Your task to perform on an android device: Go to sound settings Image 0: 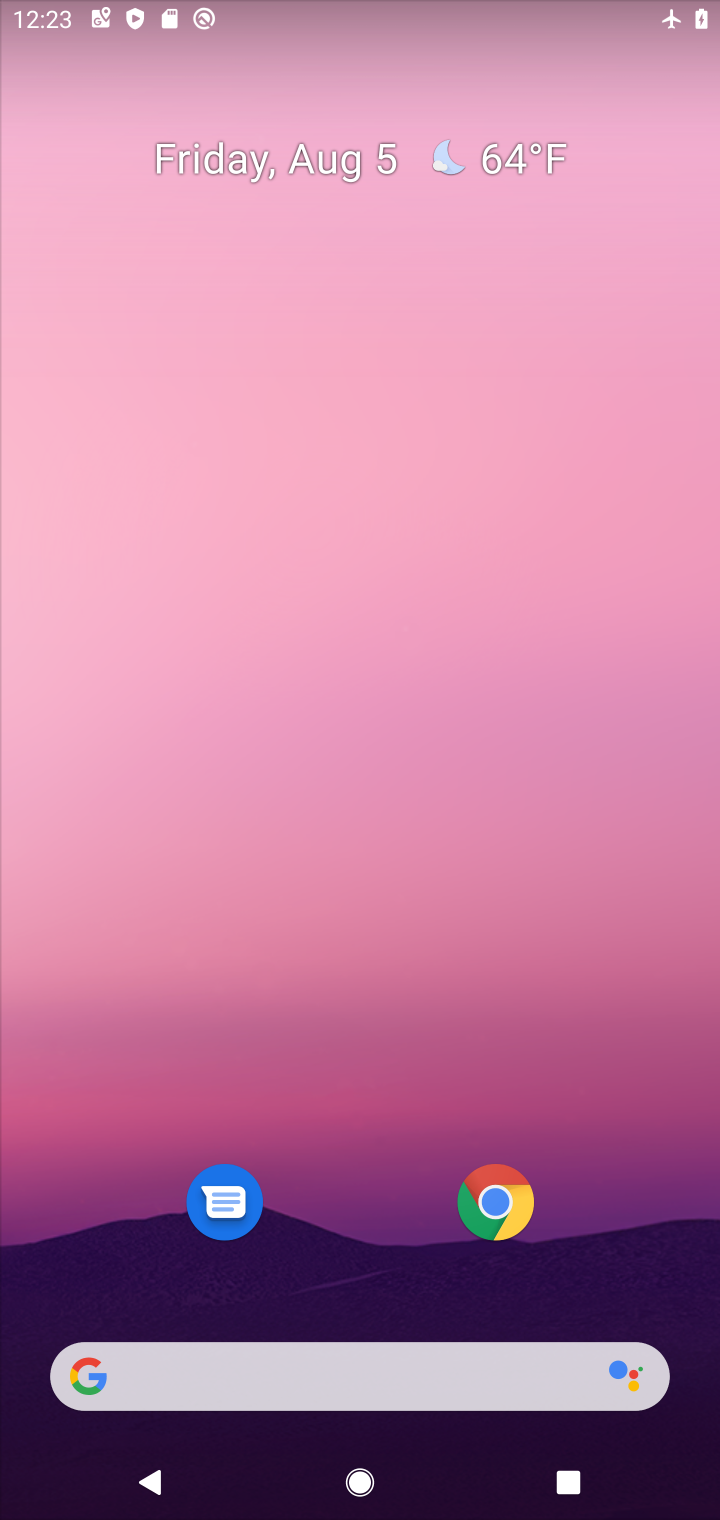
Step 0: drag from (341, 1022) to (389, 163)
Your task to perform on an android device: Go to sound settings Image 1: 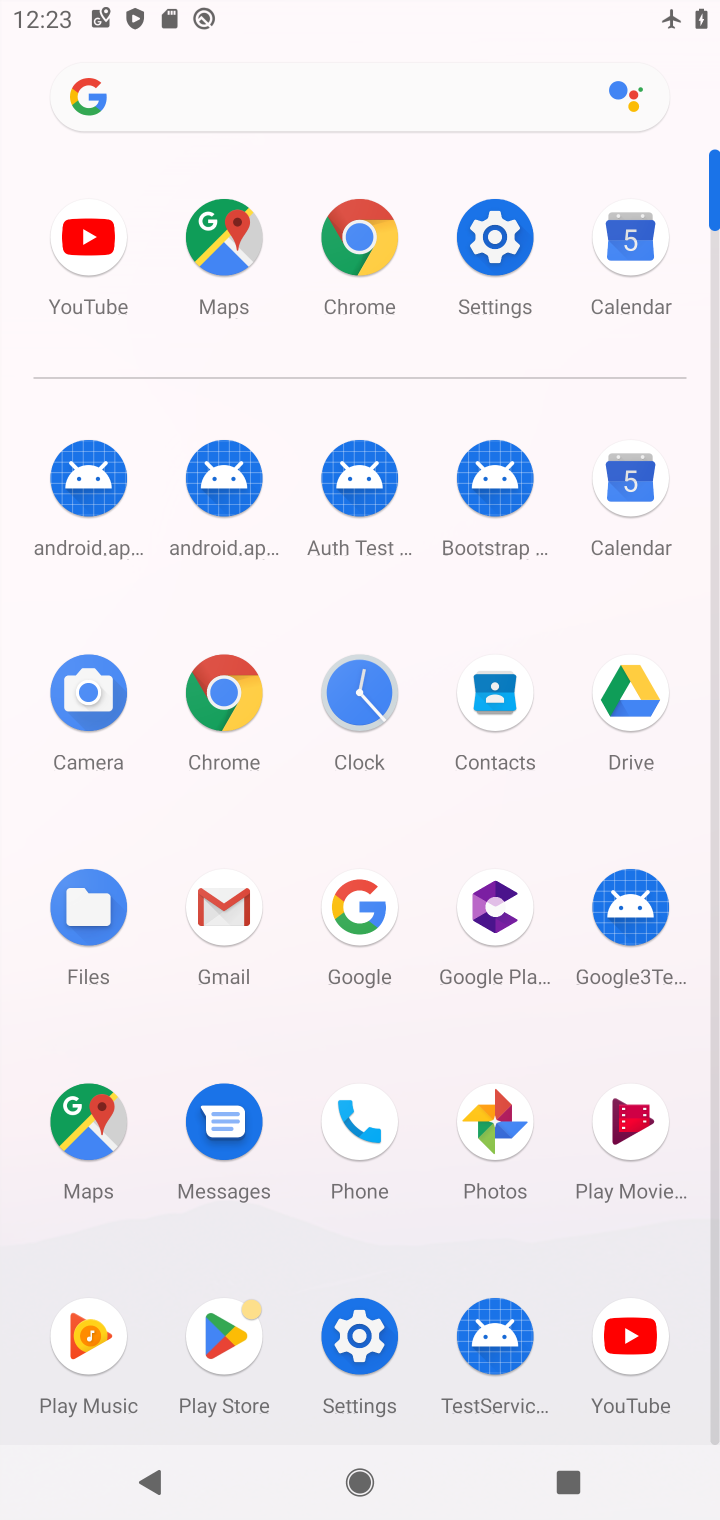
Step 1: click (502, 257)
Your task to perform on an android device: Go to sound settings Image 2: 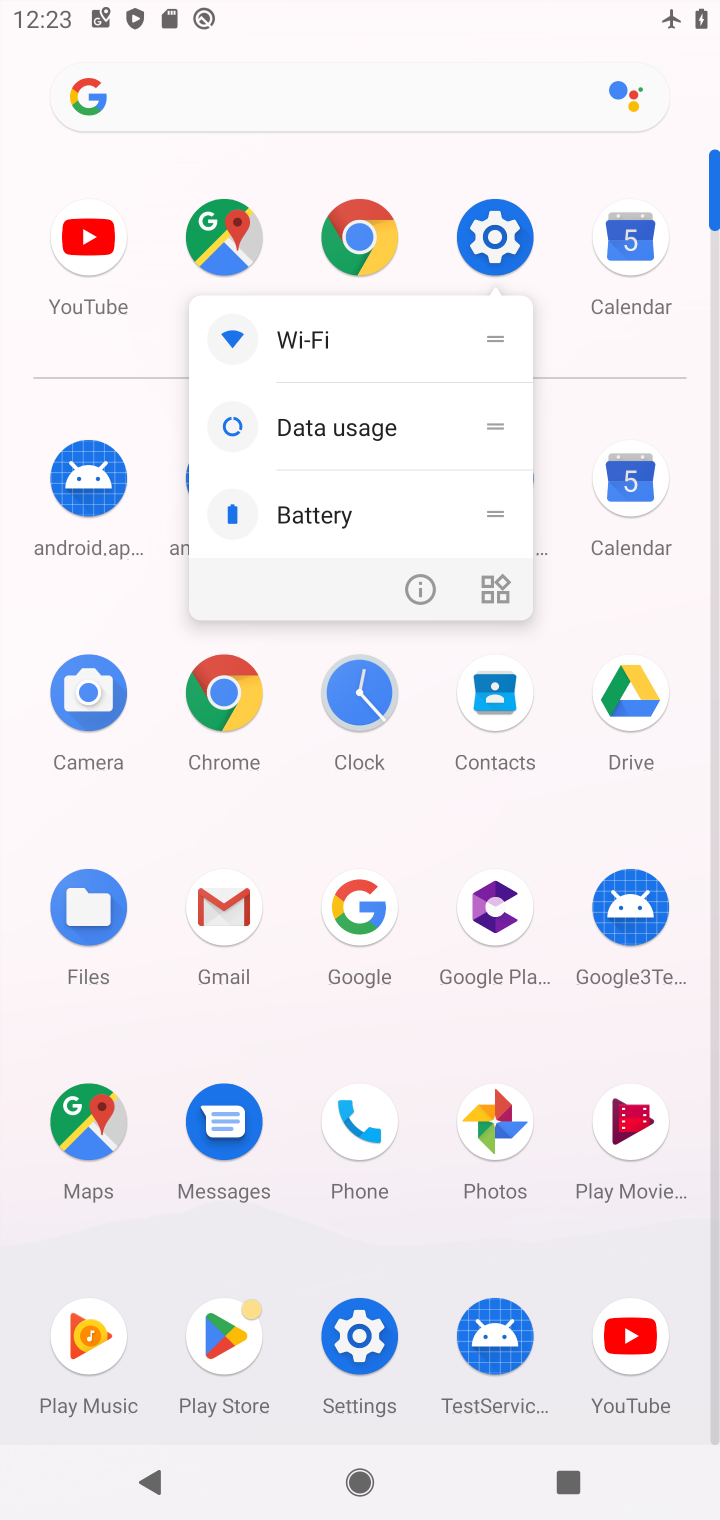
Step 2: click (497, 251)
Your task to perform on an android device: Go to sound settings Image 3: 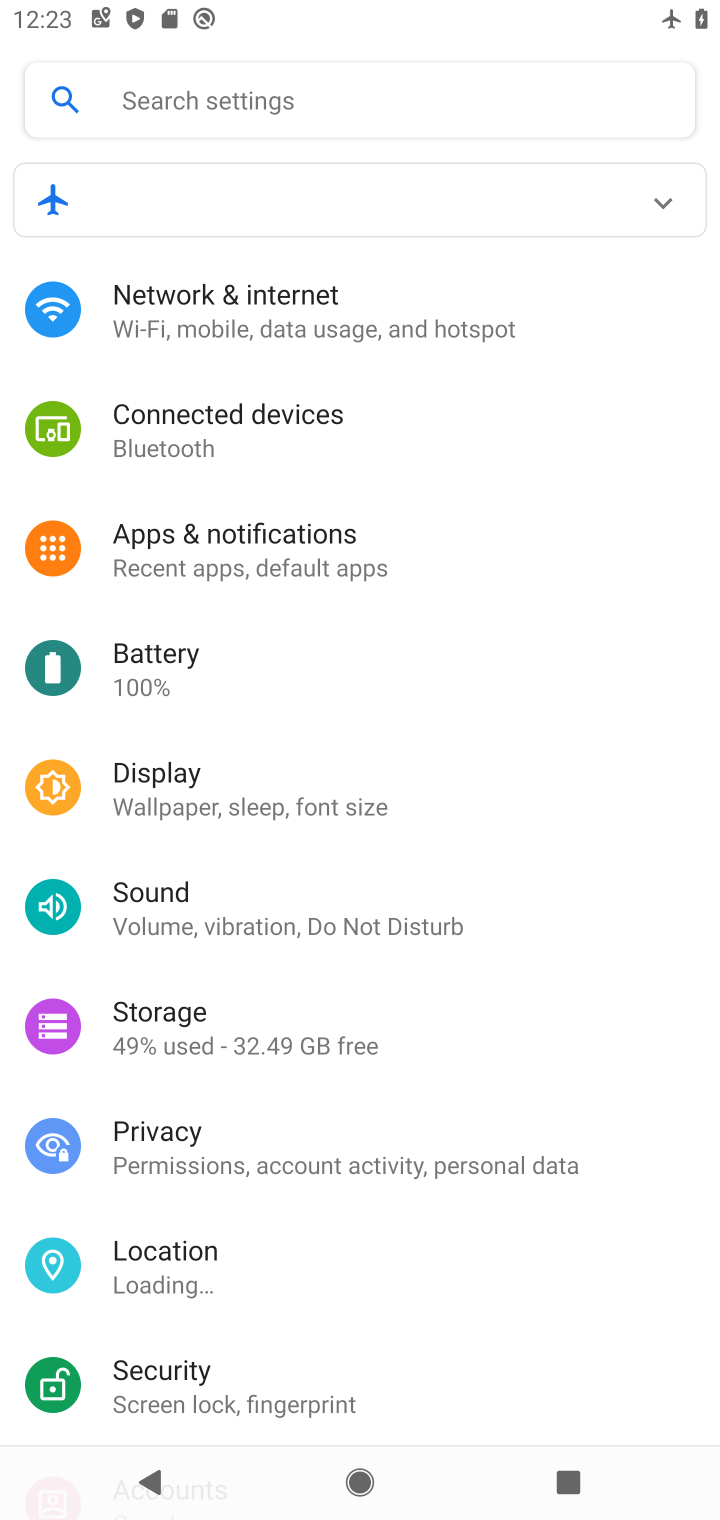
Step 3: click (497, 233)
Your task to perform on an android device: Go to sound settings Image 4: 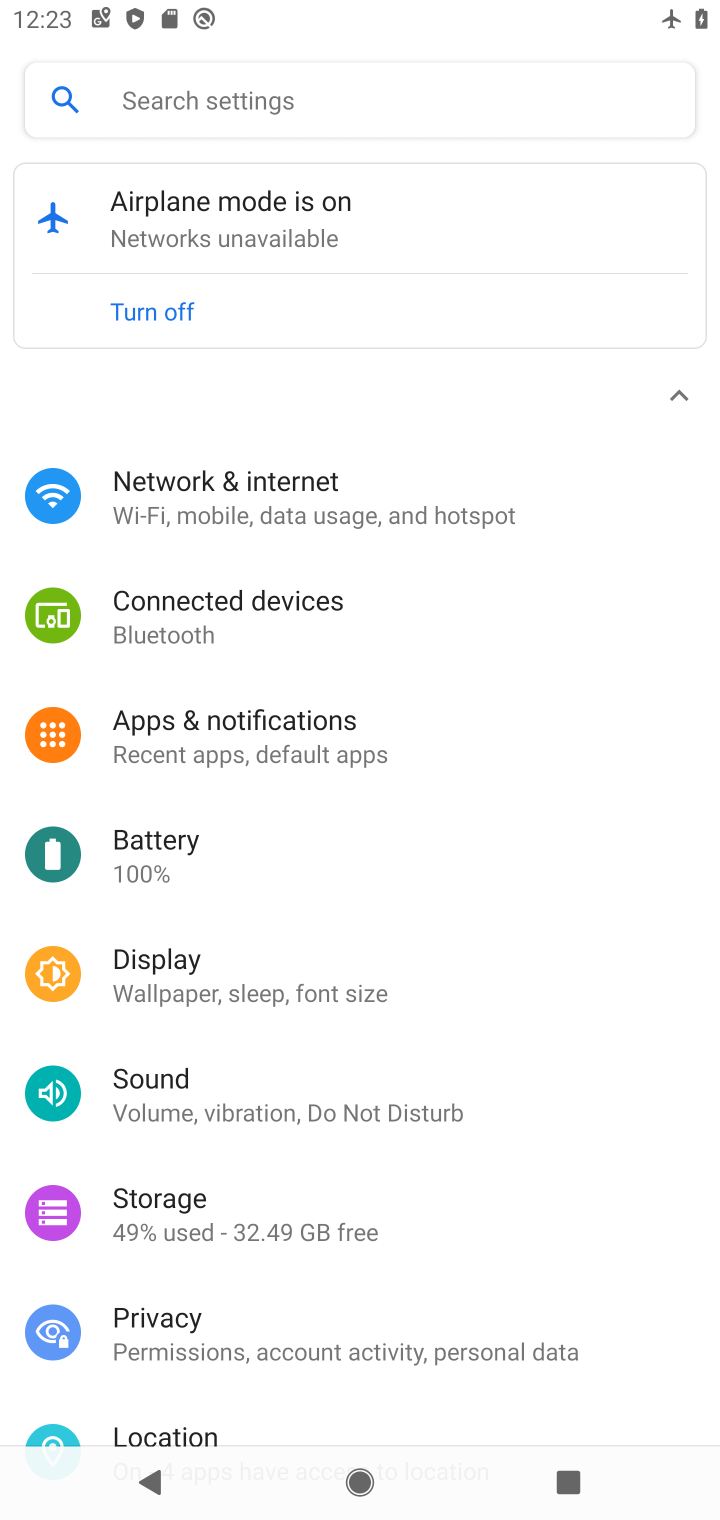
Step 4: click (216, 1075)
Your task to perform on an android device: Go to sound settings Image 5: 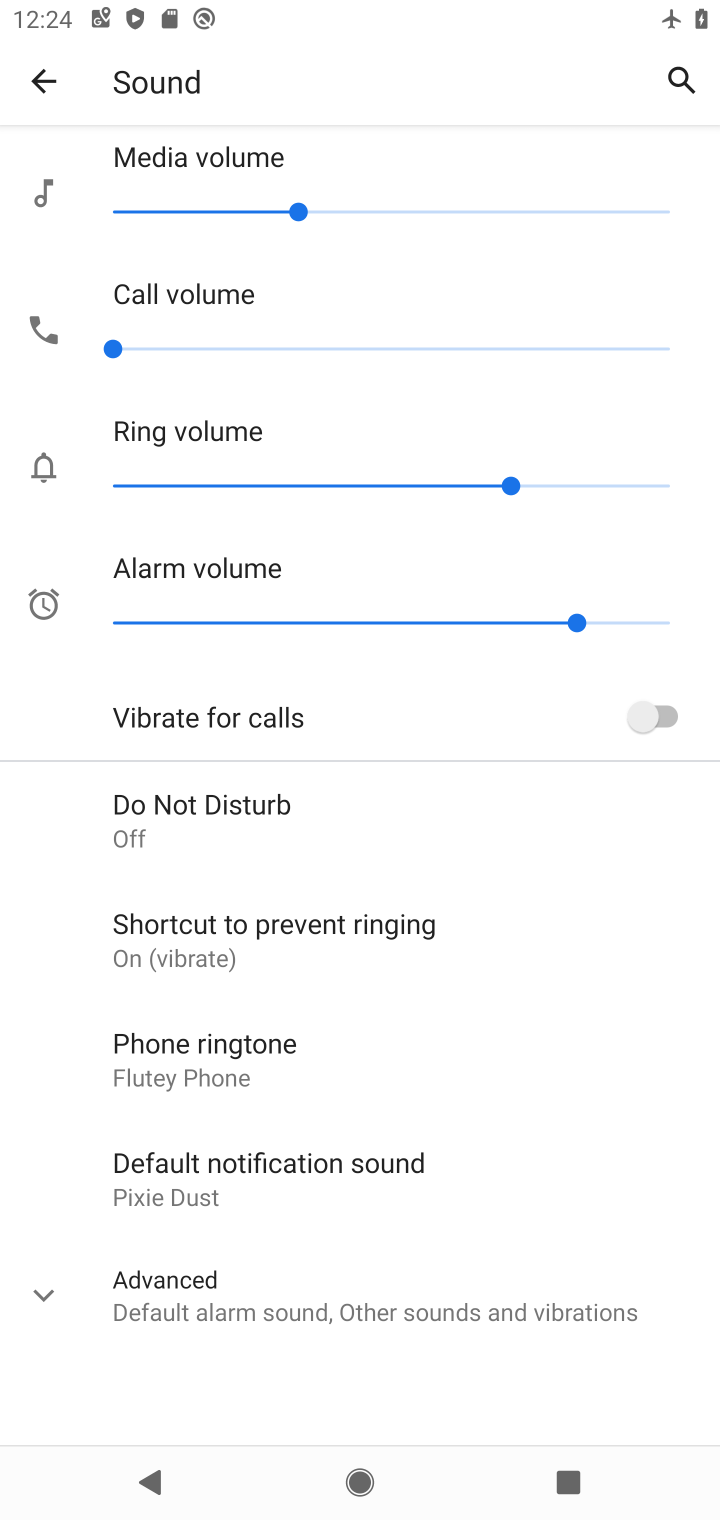
Step 5: task complete